Your task to perform on an android device: Is it going to rain today? Image 0: 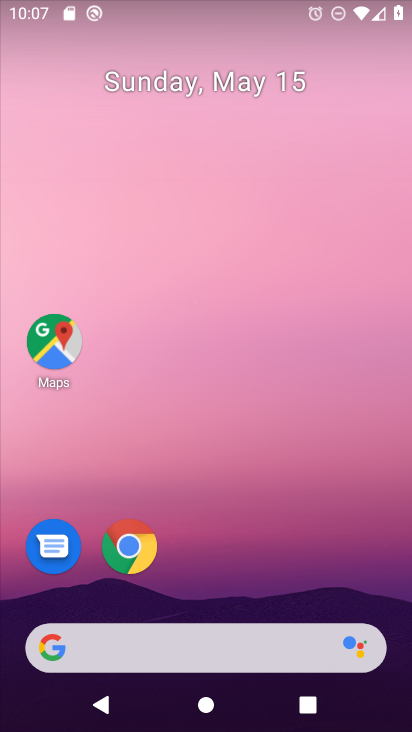
Step 0: click (217, 636)
Your task to perform on an android device: Is it going to rain today? Image 1: 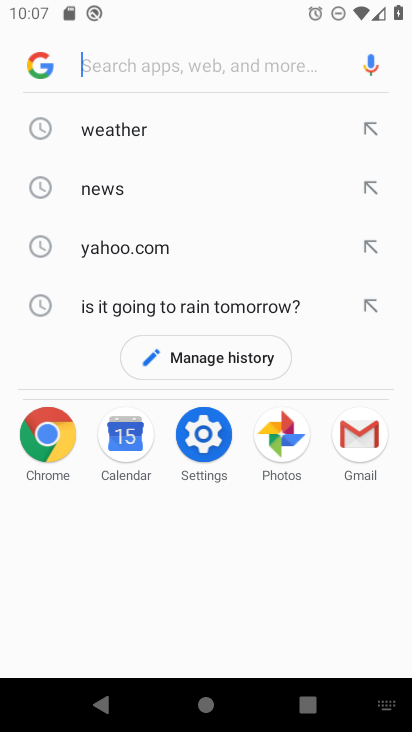
Step 1: click (103, 124)
Your task to perform on an android device: Is it going to rain today? Image 2: 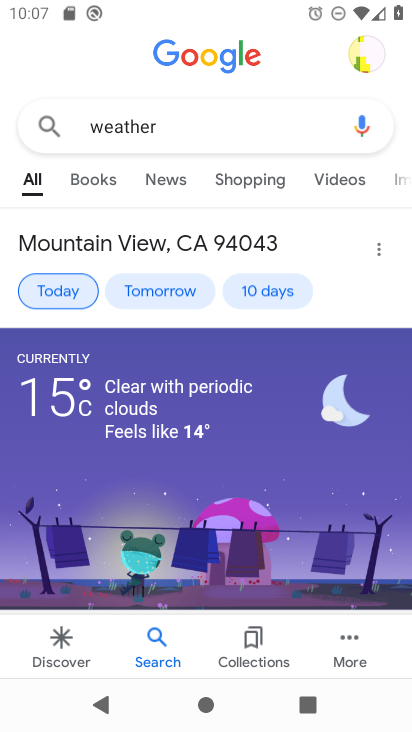
Step 2: click (76, 288)
Your task to perform on an android device: Is it going to rain today? Image 3: 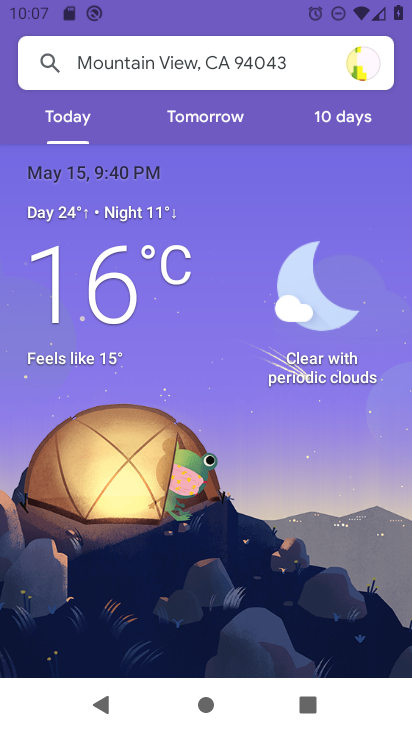
Step 3: task complete